Your task to perform on an android device: snooze an email in the gmail app Image 0: 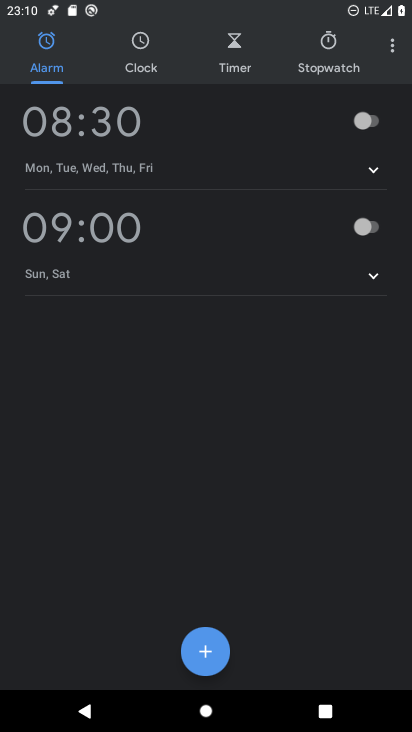
Step 0: press back button
Your task to perform on an android device: snooze an email in the gmail app Image 1: 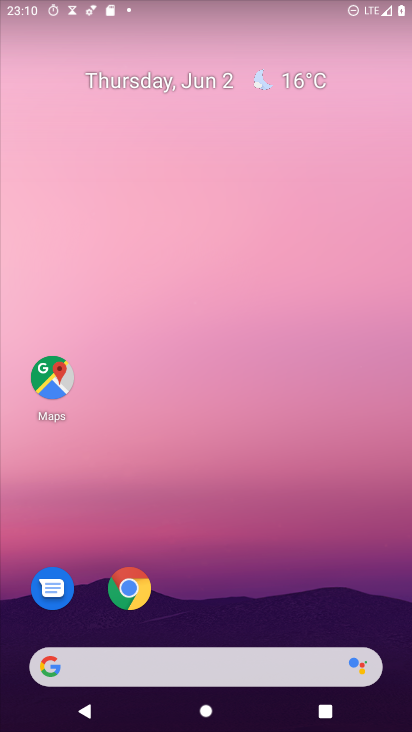
Step 1: drag from (204, 546) to (186, 142)
Your task to perform on an android device: snooze an email in the gmail app Image 2: 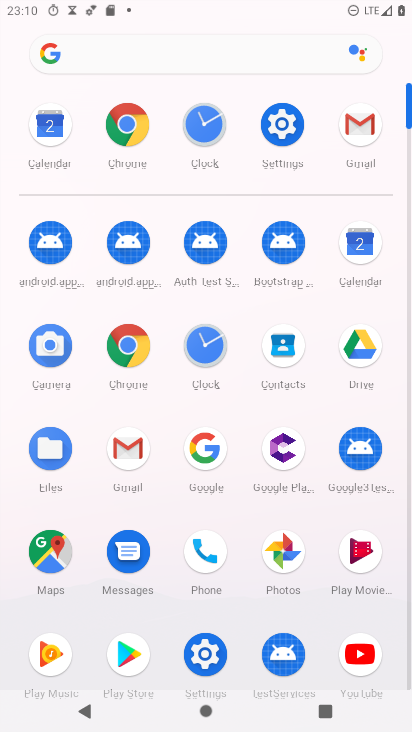
Step 2: click (367, 132)
Your task to perform on an android device: snooze an email in the gmail app Image 3: 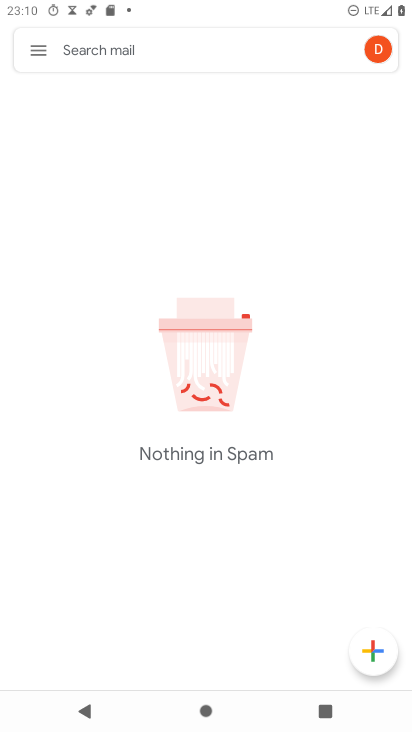
Step 3: click (43, 45)
Your task to perform on an android device: snooze an email in the gmail app Image 4: 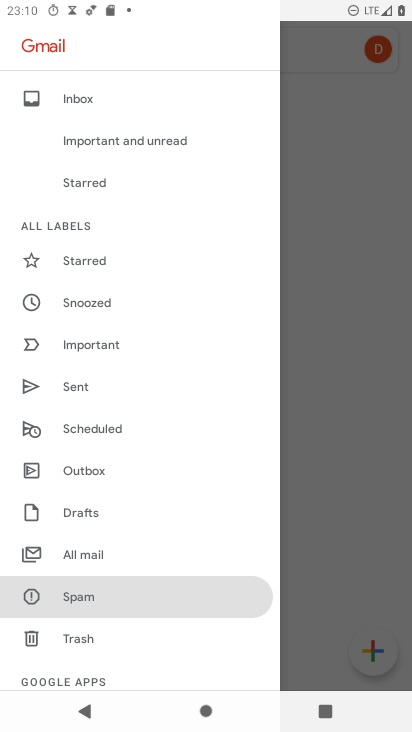
Step 4: click (97, 559)
Your task to perform on an android device: snooze an email in the gmail app Image 5: 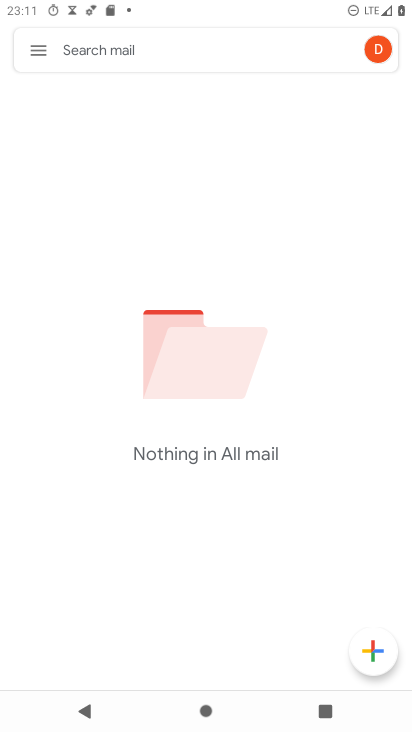
Step 5: task complete